Your task to perform on an android device: change alarm snooze length Image 0: 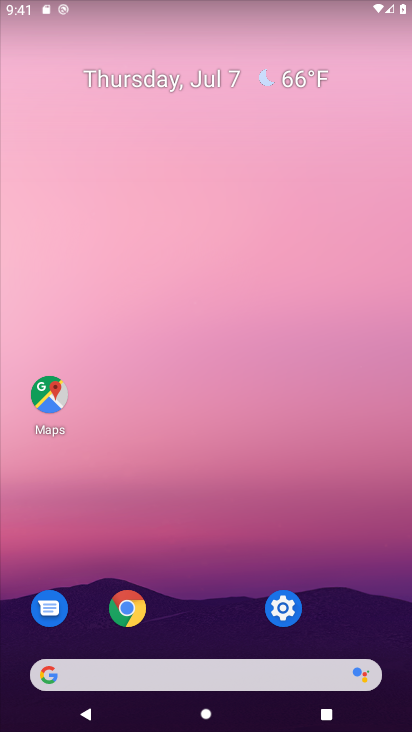
Step 0: drag from (211, 689) to (203, 220)
Your task to perform on an android device: change alarm snooze length Image 1: 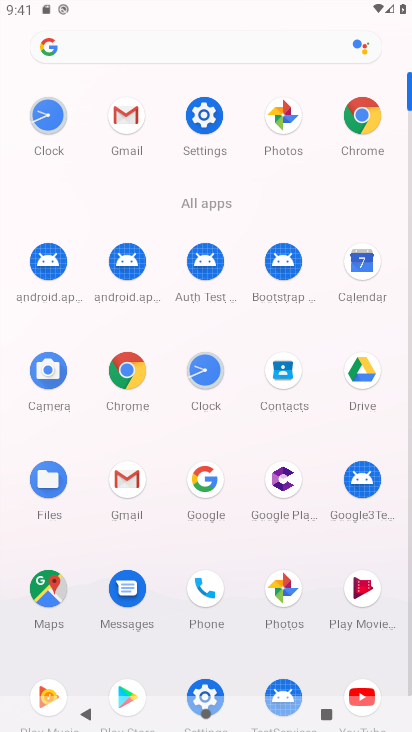
Step 1: click (224, 365)
Your task to perform on an android device: change alarm snooze length Image 2: 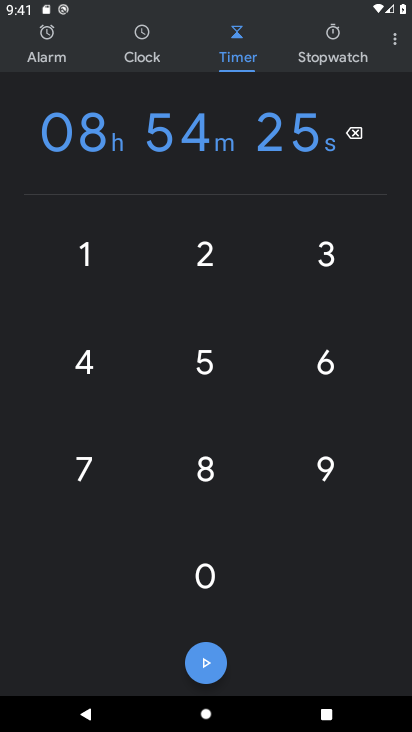
Step 2: click (395, 45)
Your task to perform on an android device: change alarm snooze length Image 3: 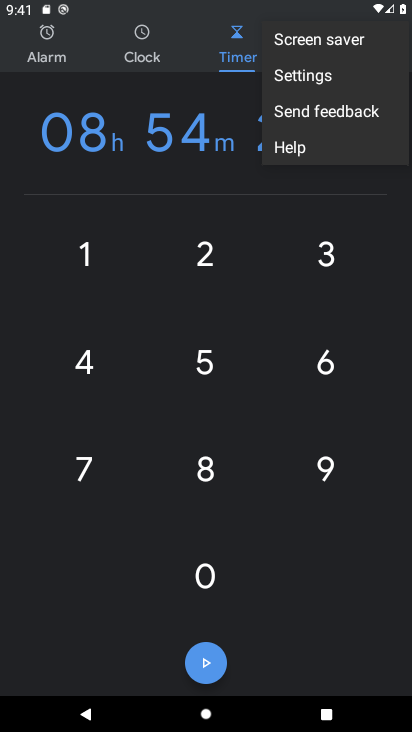
Step 3: click (312, 74)
Your task to perform on an android device: change alarm snooze length Image 4: 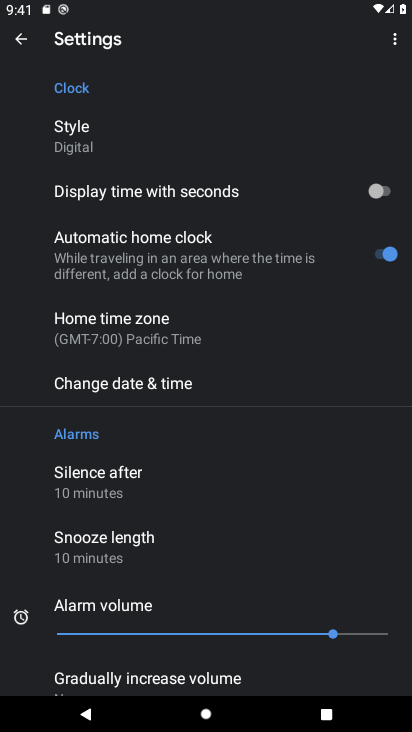
Step 4: click (140, 536)
Your task to perform on an android device: change alarm snooze length Image 5: 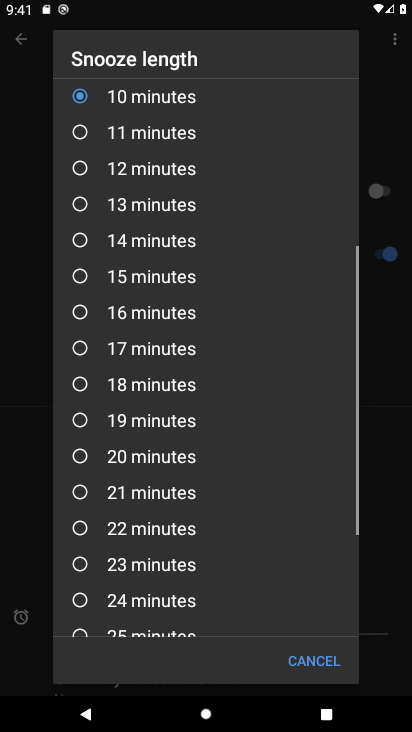
Step 5: click (171, 430)
Your task to perform on an android device: change alarm snooze length Image 6: 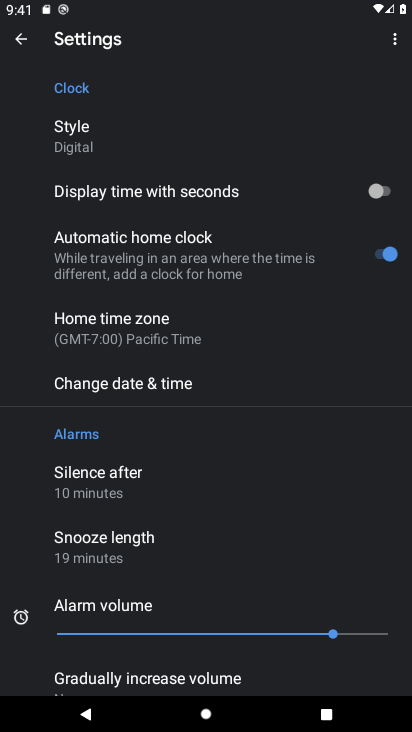
Step 6: click (127, 534)
Your task to perform on an android device: change alarm snooze length Image 7: 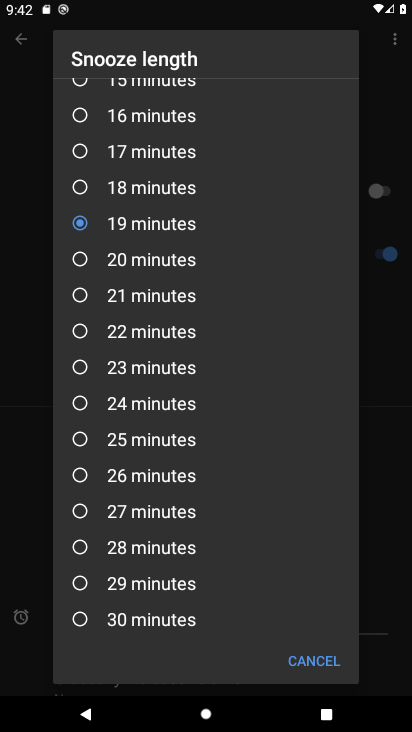
Step 7: task complete